Your task to perform on an android device: Open my contact list Image 0: 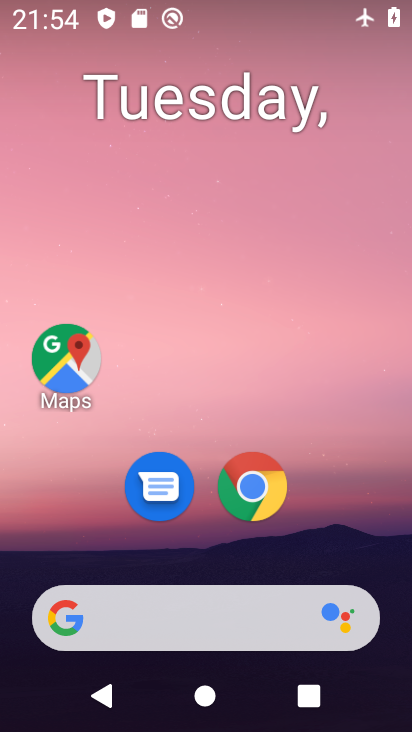
Step 0: press home button
Your task to perform on an android device: Open my contact list Image 1: 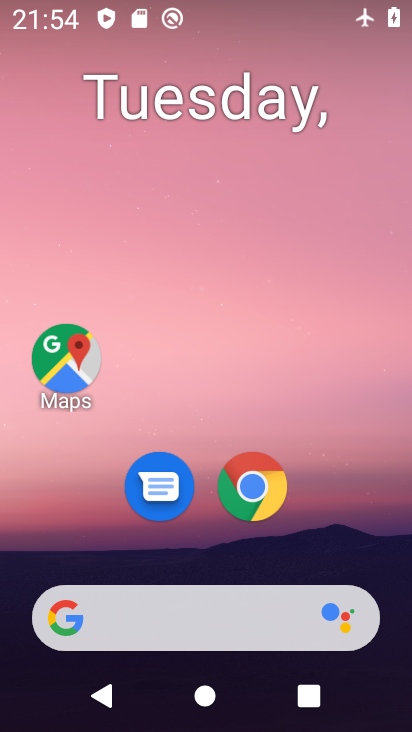
Step 1: drag from (318, 542) to (329, 116)
Your task to perform on an android device: Open my contact list Image 2: 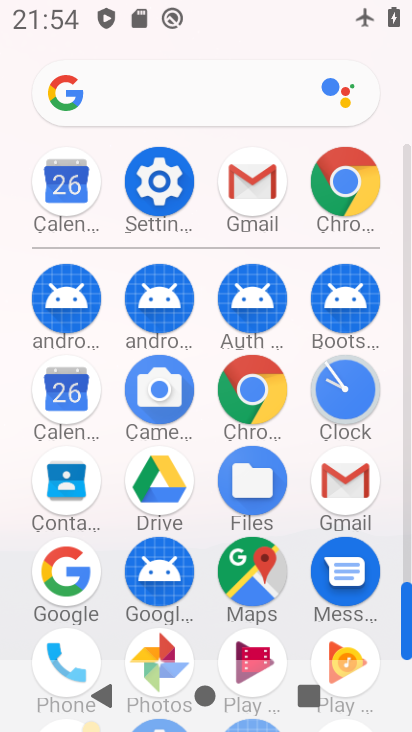
Step 2: click (61, 491)
Your task to perform on an android device: Open my contact list Image 3: 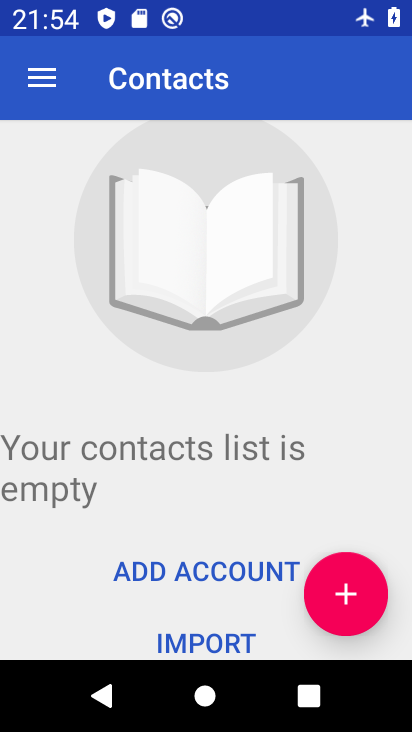
Step 3: task complete